Your task to perform on an android device: Open Chrome and go to the settings page Image 0: 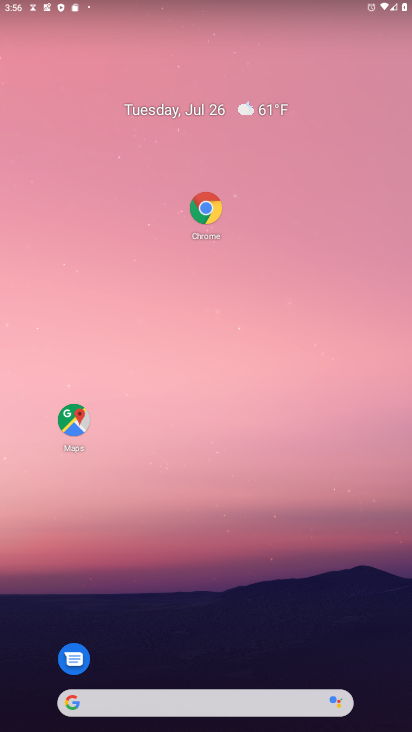
Step 0: click (205, 201)
Your task to perform on an android device: Open Chrome and go to the settings page Image 1: 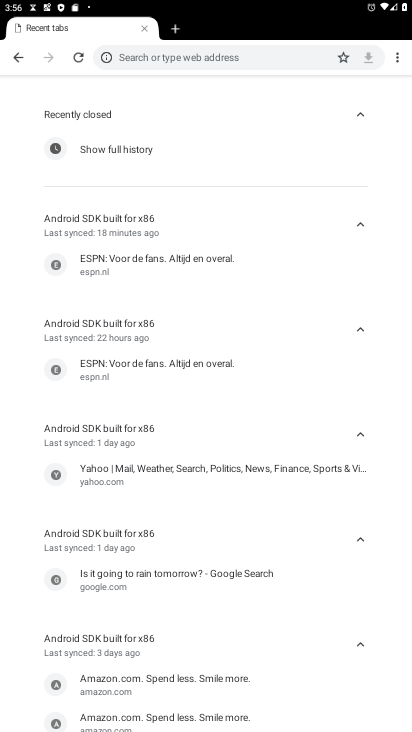
Step 1: click (404, 64)
Your task to perform on an android device: Open Chrome and go to the settings page Image 2: 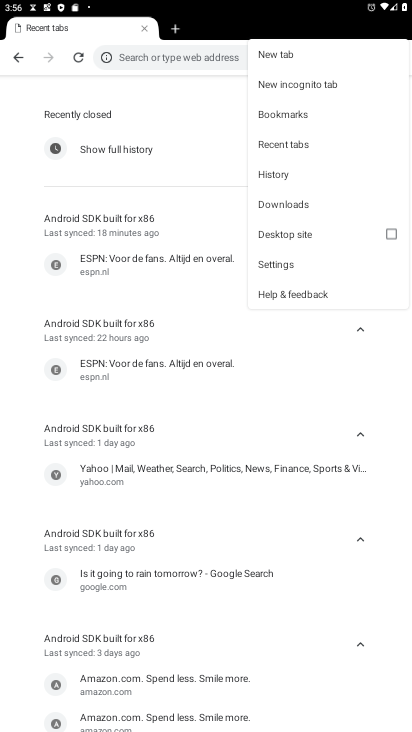
Step 2: click (273, 271)
Your task to perform on an android device: Open Chrome and go to the settings page Image 3: 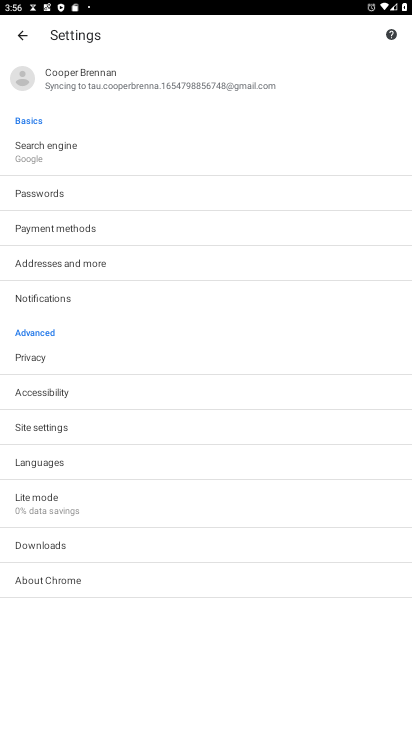
Step 3: task complete